Your task to perform on an android device: turn on priority inbox in the gmail app Image 0: 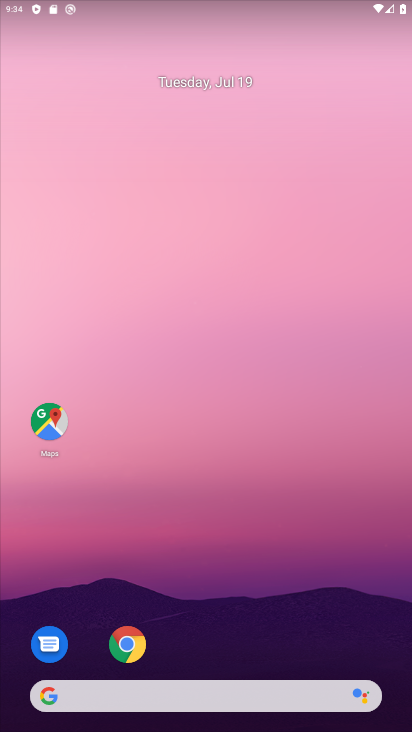
Step 0: drag from (186, 607) to (169, 327)
Your task to perform on an android device: turn on priority inbox in the gmail app Image 1: 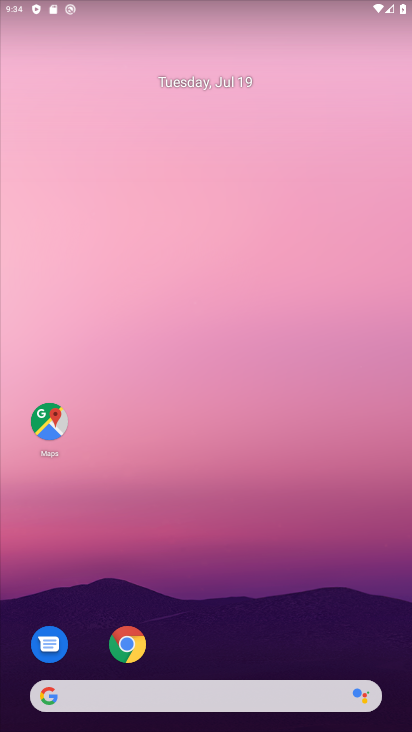
Step 1: drag from (219, 458) to (222, 273)
Your task to perform on an android device: turn on priority inbox in the gmail app Image 2: 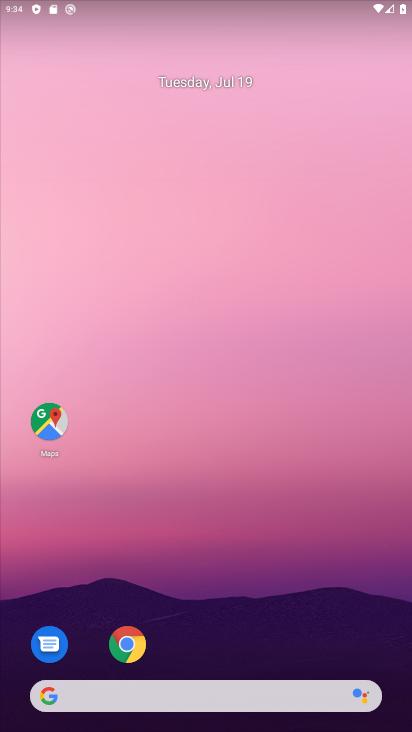
Step 2: drag from (273, 621) to (236, 250)
Your task to perform on an android device: turn on priority inbox in the gmail app Image 3: 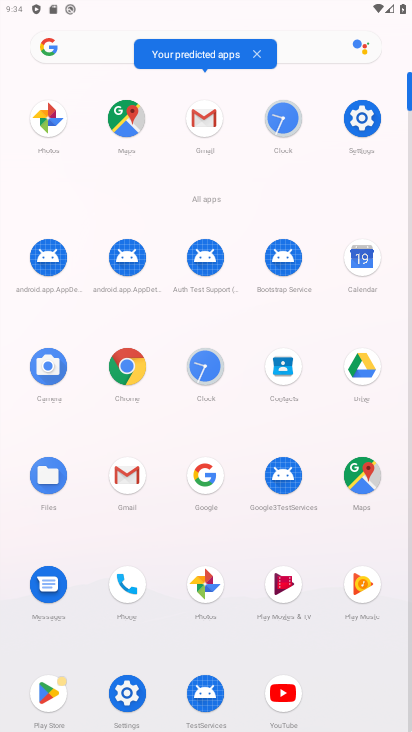
Step 3: click (120, 483)
Your task to perform on an android device: turn on priority inbox in the gmail app Image 4: 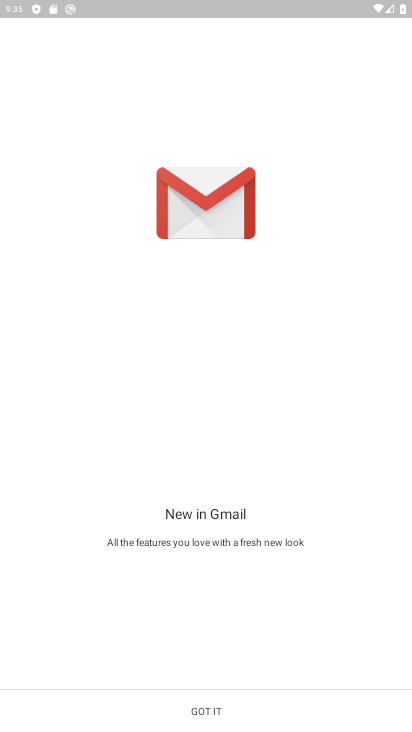
Step 4: click (209, 701)
Your task to perform on an android device: turn on priority inbox in the gmail app Image 5: 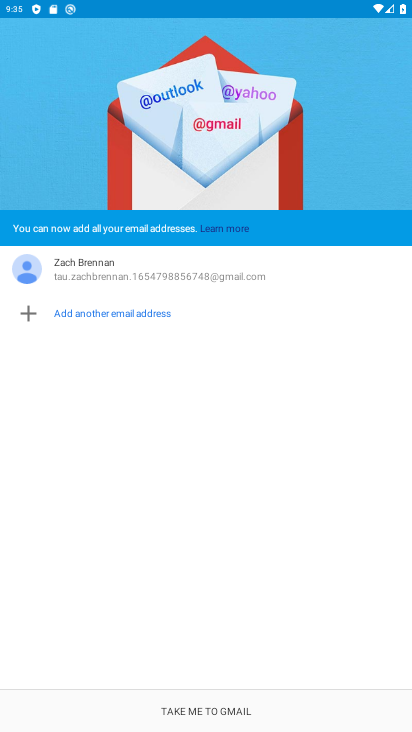
Step 5: click (206, 699)
Your task to perform on an android device: turn on priority inbox in the gmail app Image 6: 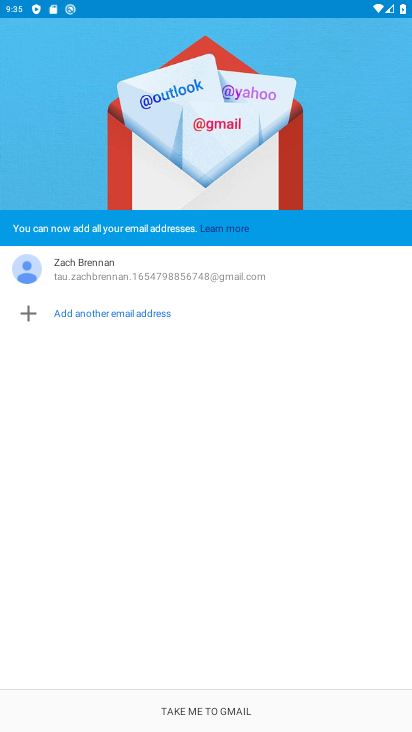
Step 6: click (199, 708)
Your task to perform on an android device: turn on priority inbox in the gmail app Image 7: 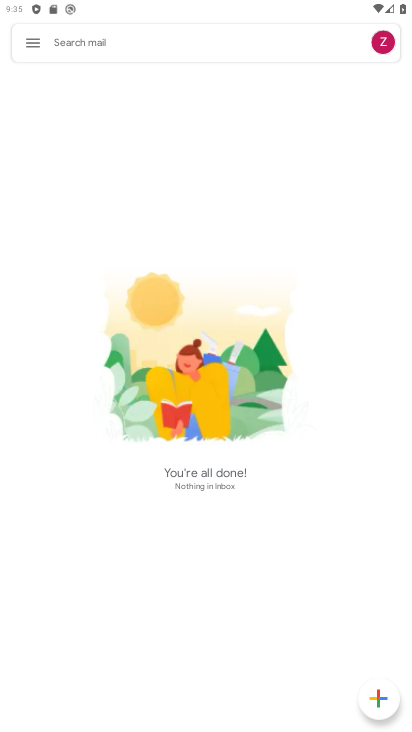
Step 7: click (25, 42)
Your task to perform on an android device: turn on priority inbox in the gmail app Image 8: 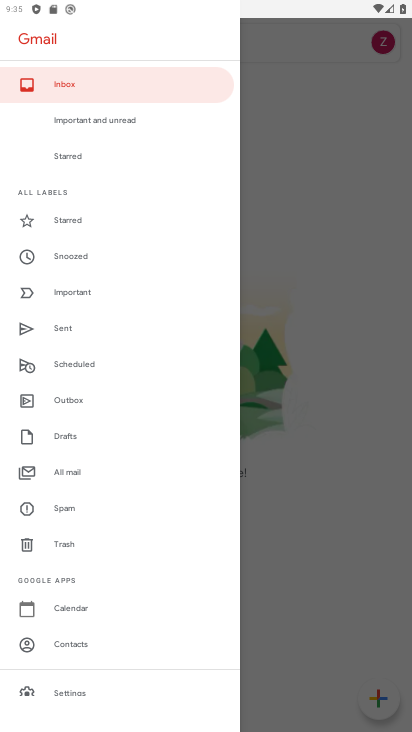
Step 8: click (38, 695)
Your task to perform on an android device: turn on priority inbox in the gmail app Image 9: 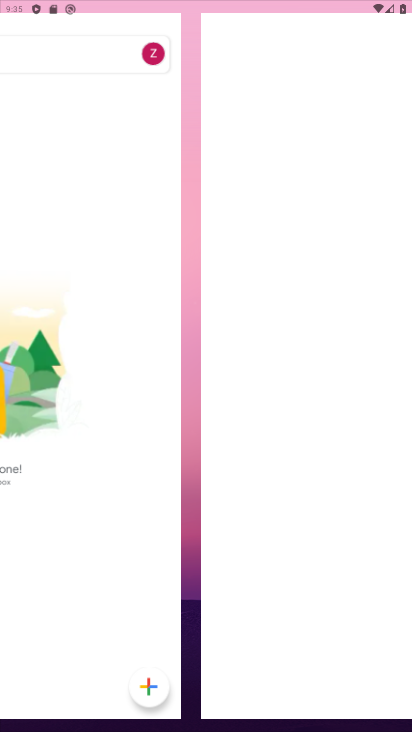
Step 9: click (38, 692)
Your task to perform on an android device: turn on priority inbox in the gmail app Image 10: 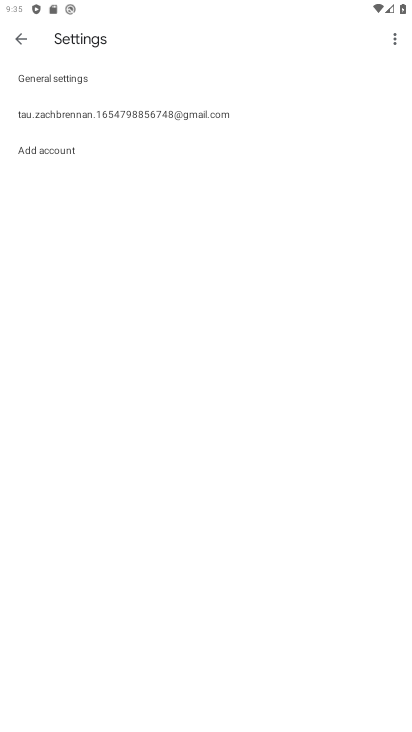
Step 10: task complete